Your task to perform on an android device: allow cookies in the chrome app Image 0: 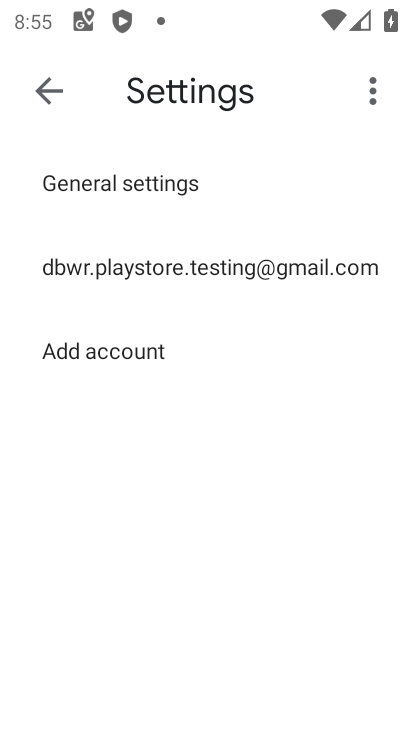
Step 0: press home button
Your task to perform on an android device: allow cookies in the chrome app Image 1: 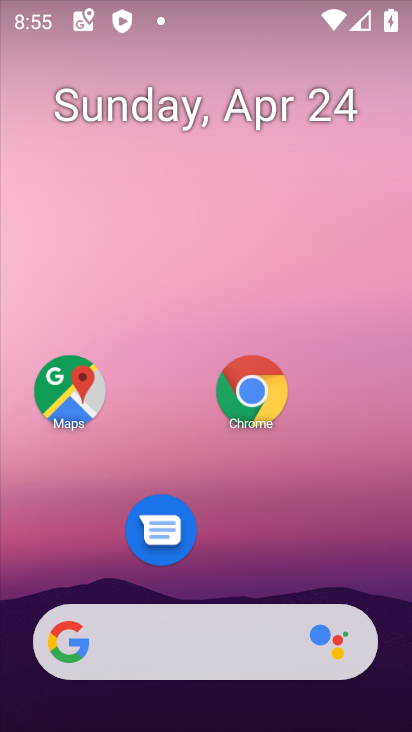
Step 1: click (246, 396)
Your task to perform on an android device: allow cookies in the chrome app Image 2: 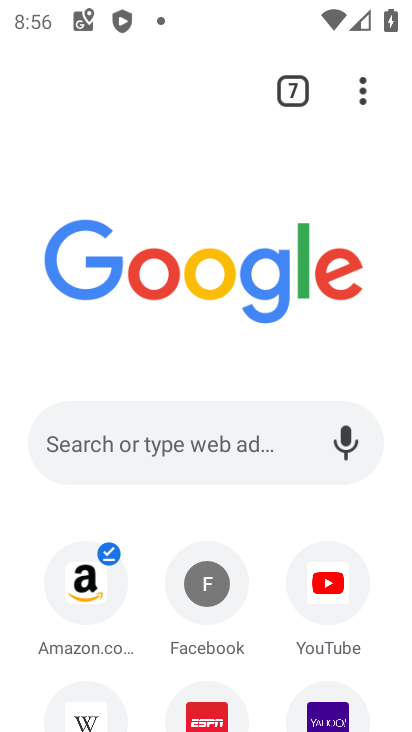
Step 2: click (372, 79)
Your task to perform on an android device: allow cookies in the chrome app Image 3: 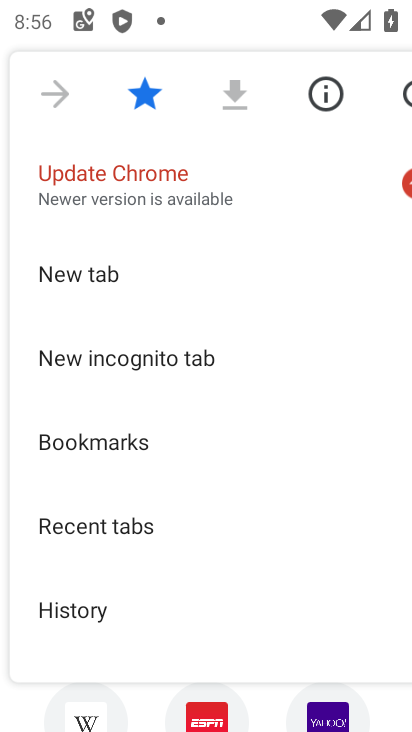
Step 3: drag from (133, 624) to (192, 181)
Your task to perform on an android device: allow cookies in the chrome app Image 4: 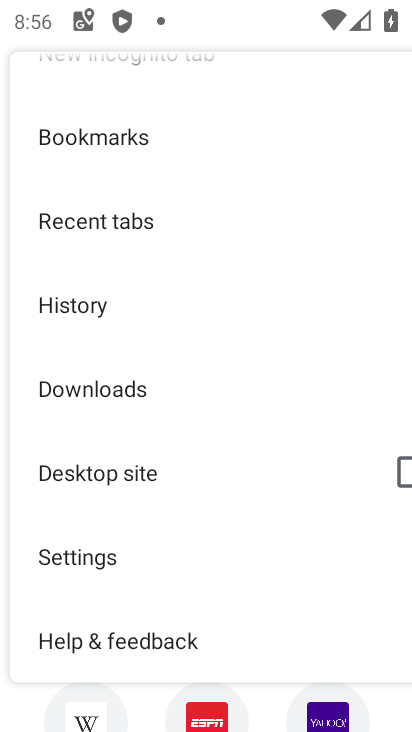
Step 4: click (102, 567)
Your task to perform on an android device: allow cookies in the chrome app Image 5: 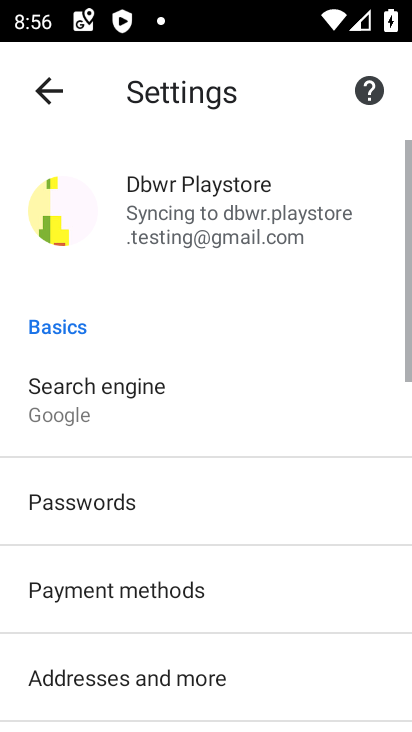
Step 5: drag from (102, 567) to (133, 190)
Your task to perform on an android device: allow cookies in the chrome app Image 6: 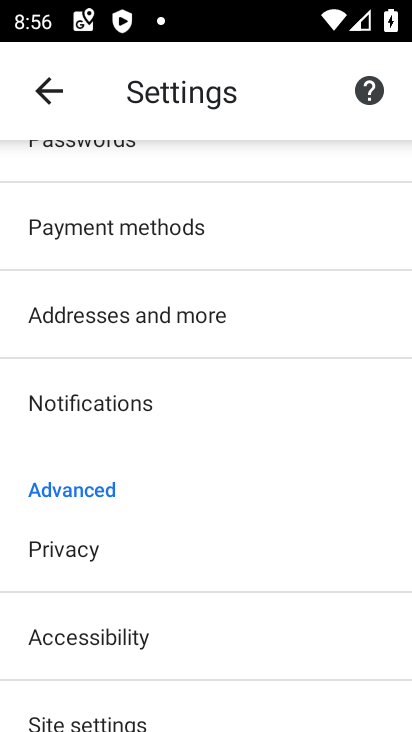
Step 6: drag from (127, 600) to (190, 279)
Your task to perform on an android device: allow cookies in the chrome app Image 7: 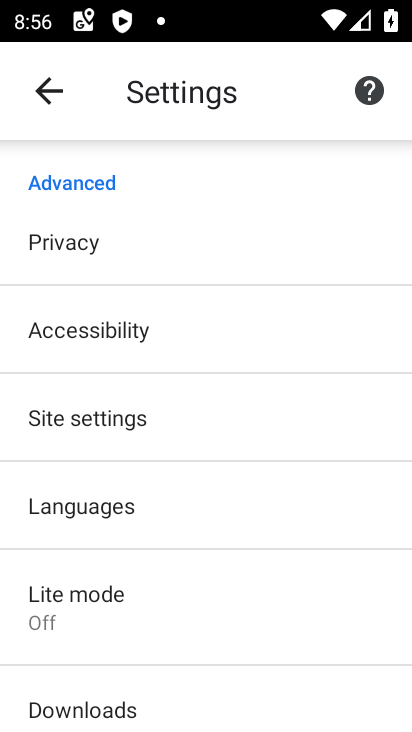
Step 7: click (163, 396)
Your task to perform on an android device: allow cookies in the chrome app Image 8: 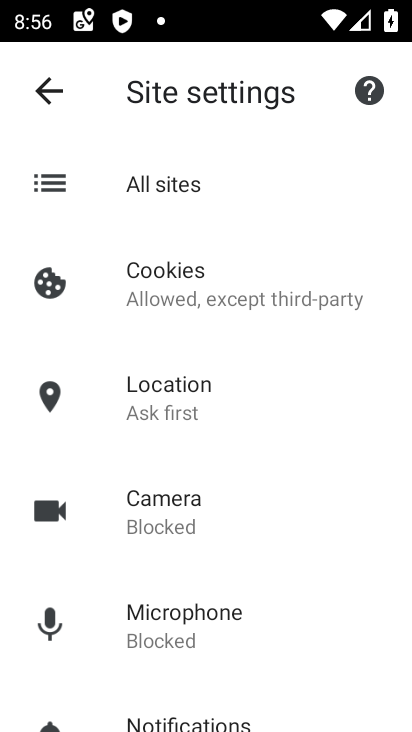
Step 8: click (201, 273)
Your task to perform on an android device: allow cookies in the chrome app Image 9: 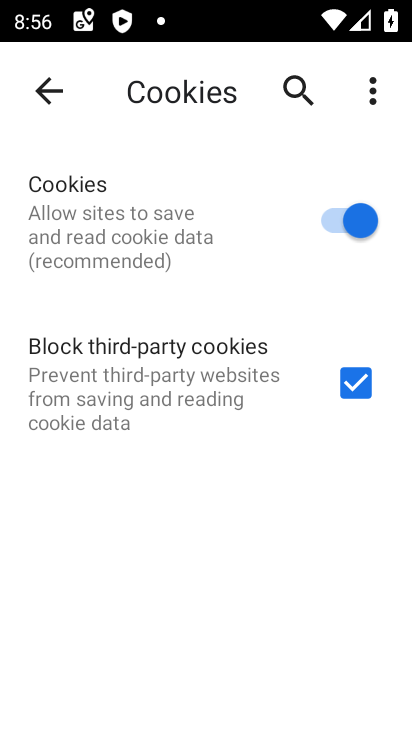
Step 9: task complete